Your task to perform on an android device: open sync settings in chrome Image 0: 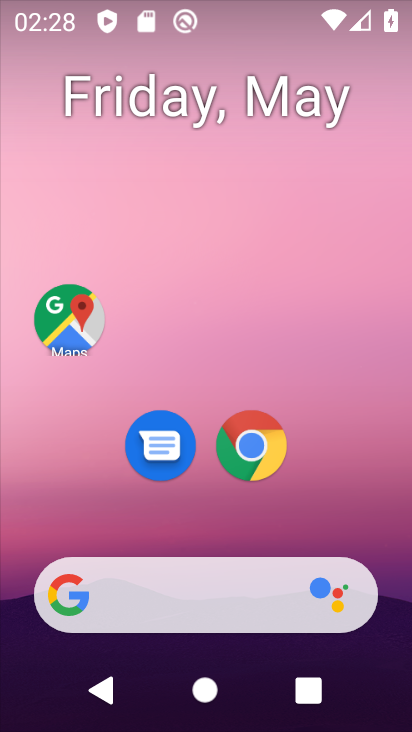
Step 0: click (276, 445)
Your task to perform on an android device: open sync settings in chrome Image 1: 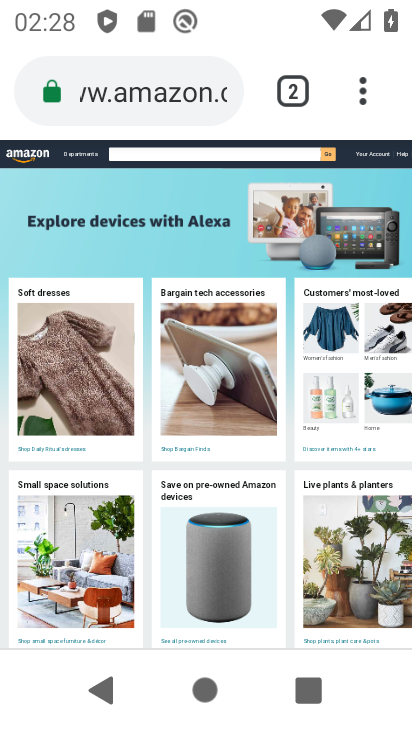
Step 1: drag from (385, 72) to (323, 490)
Your task to perform on an android device: open sync settings in chrome Image 2: 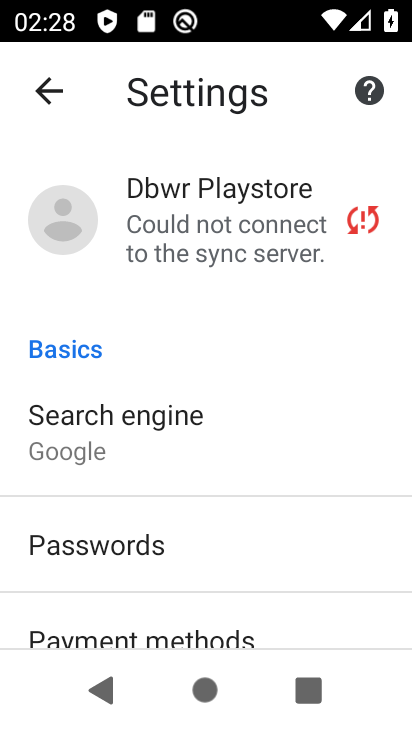
Step 2: click (266, 237)
Your task to perform on an android device: open sync settings in chrome Image 3: 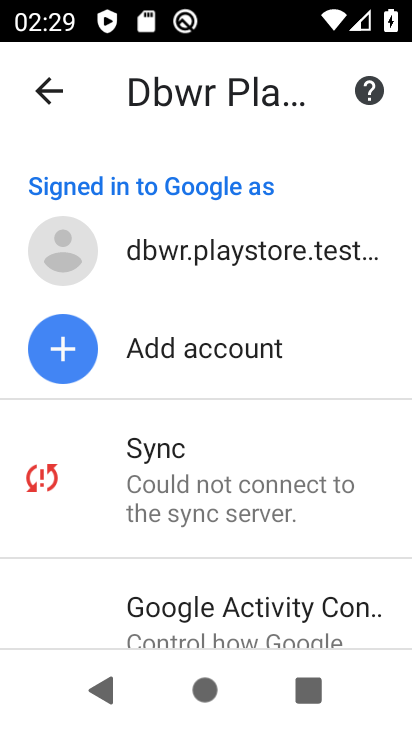
Step 3: click (211, 498)
Your task to perform on an android device: open sync settings in chrome Image 4: 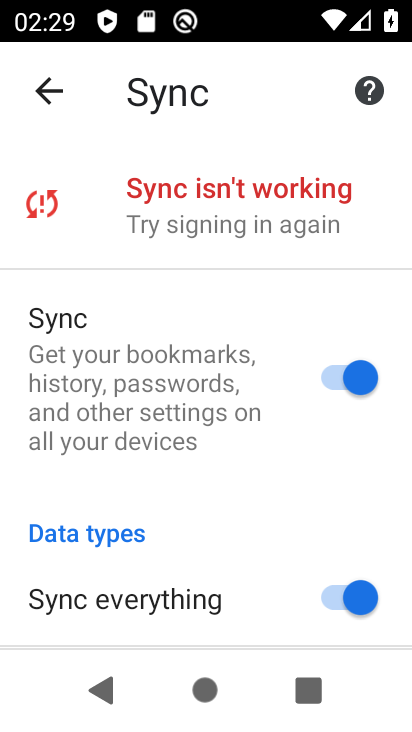
Step 4: task complete